Your task to perform on an android device: Search for the best rated headphones on Amazon Image 0: 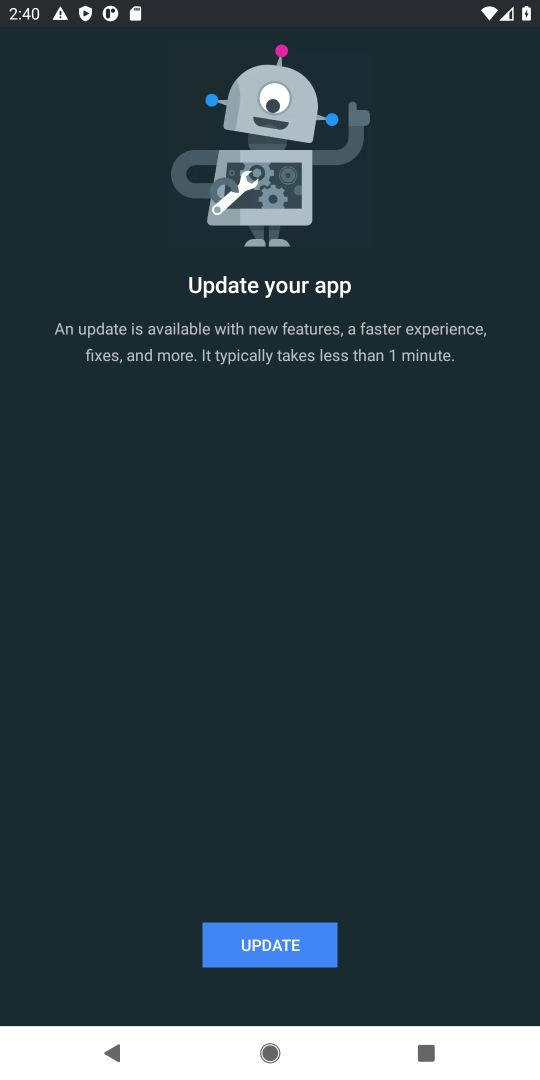
Step 0: press home button
Your task to perform on an android device: Search for the best rated headphones on Amazon Image 1: 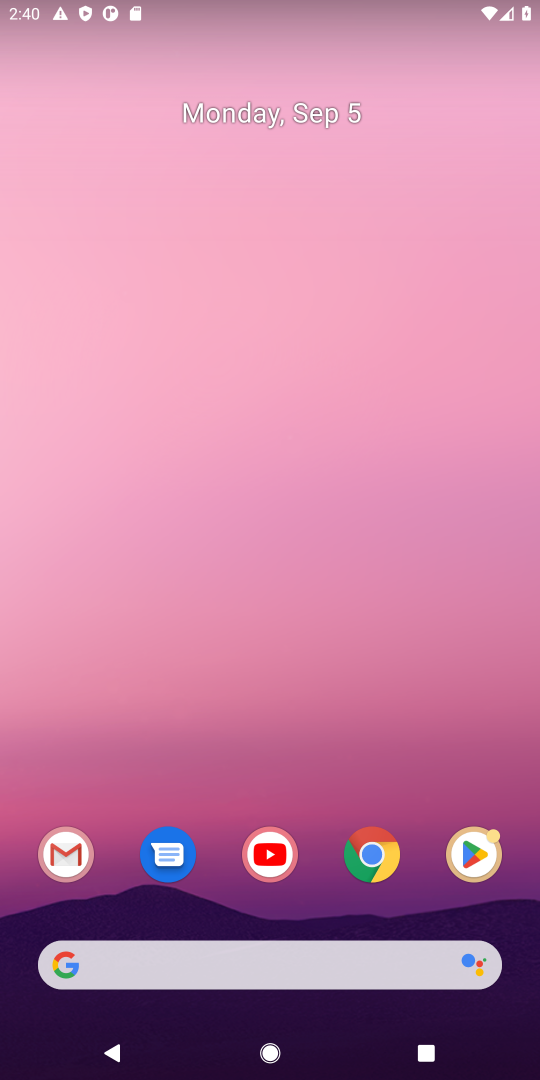
Step 1: click (354, 965)
Your task to perform on an android device: Search for the best rated headphones on Amazon Image 2: 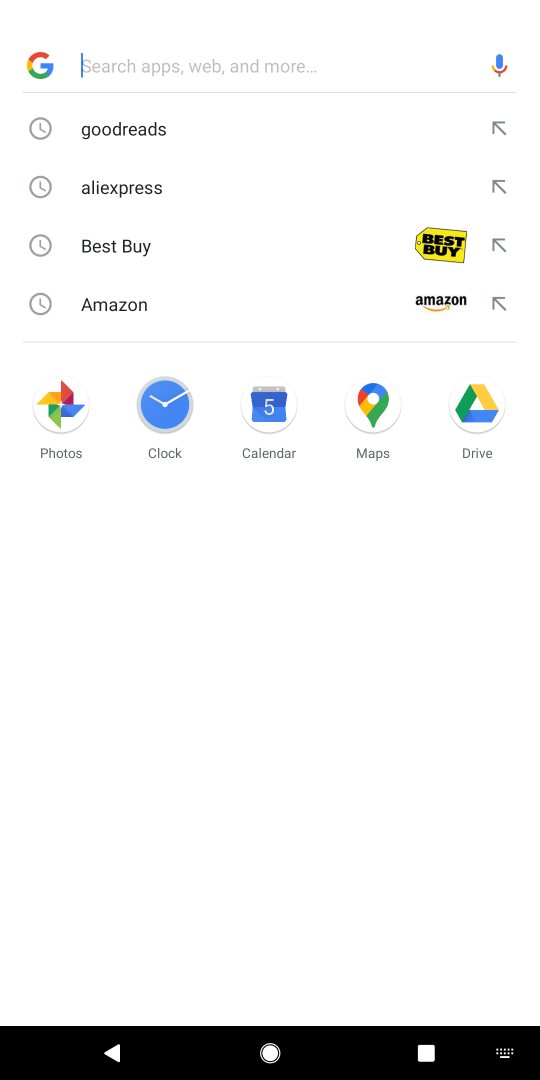
Step 2: press enter
Your task to perform on an android device: Search for the best rated headphones on Amazon Image 3: 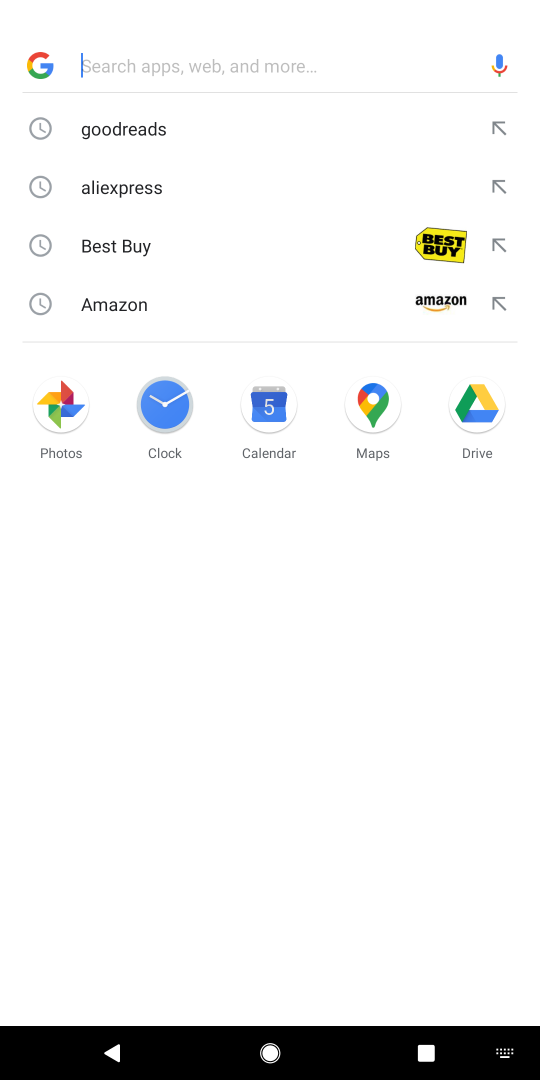
Step 3: type "amazon"
Your task to perform on an android device: Search for the best rated headphones on Amazon Image 4: 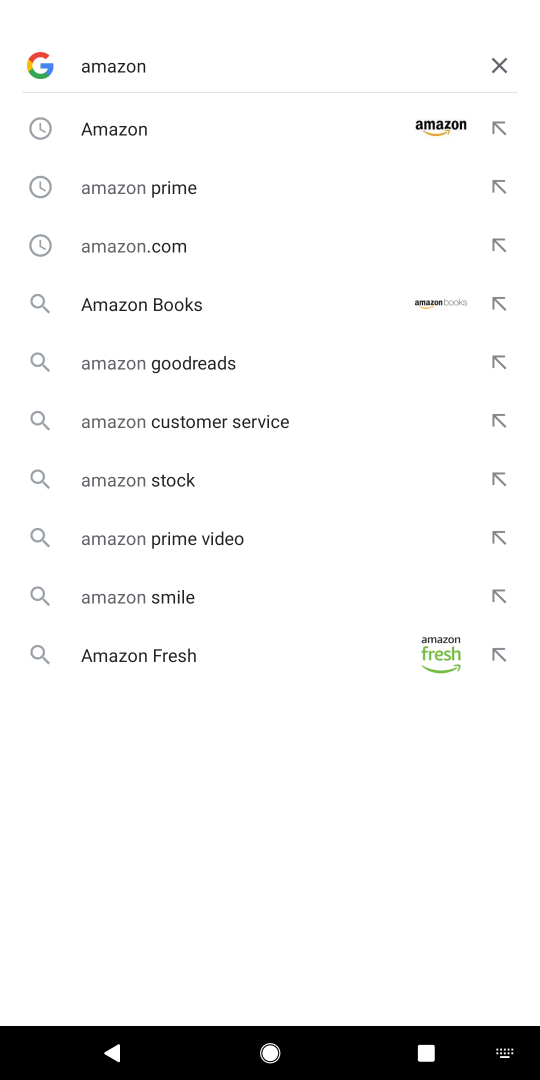
Step 4: click (174, 124)
Your task to perform on an android device: Search for the best rated headphones on Amazon Image 5: 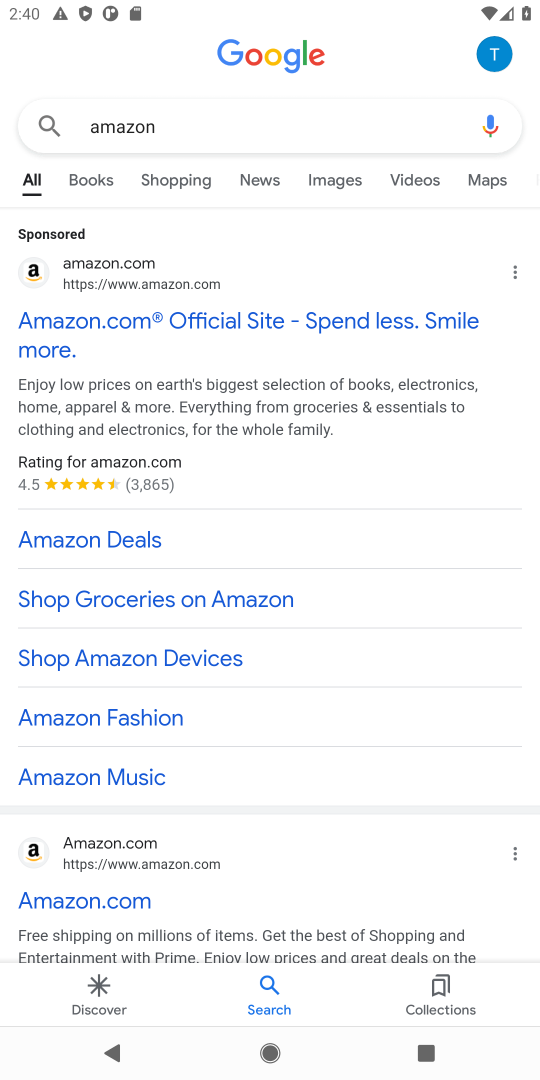
Step 5: click (247, 315)
Your task to perform on an android device: Search for the best rated headphones on Amazon Image 6: 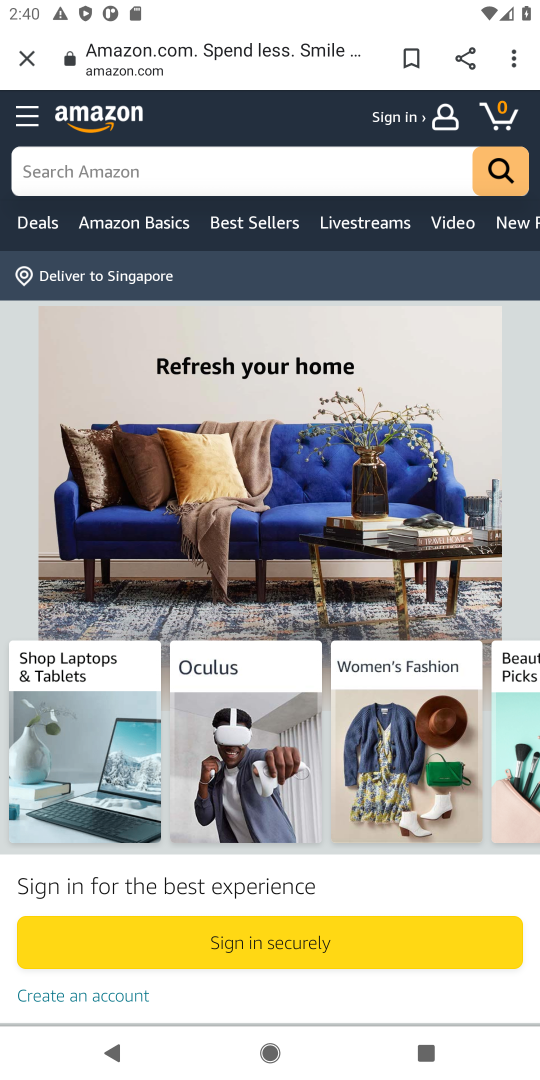
Step 6: click (237, 164)
Your task to perform on an android device: Search for the best rated headphones on Amazon Image 7: 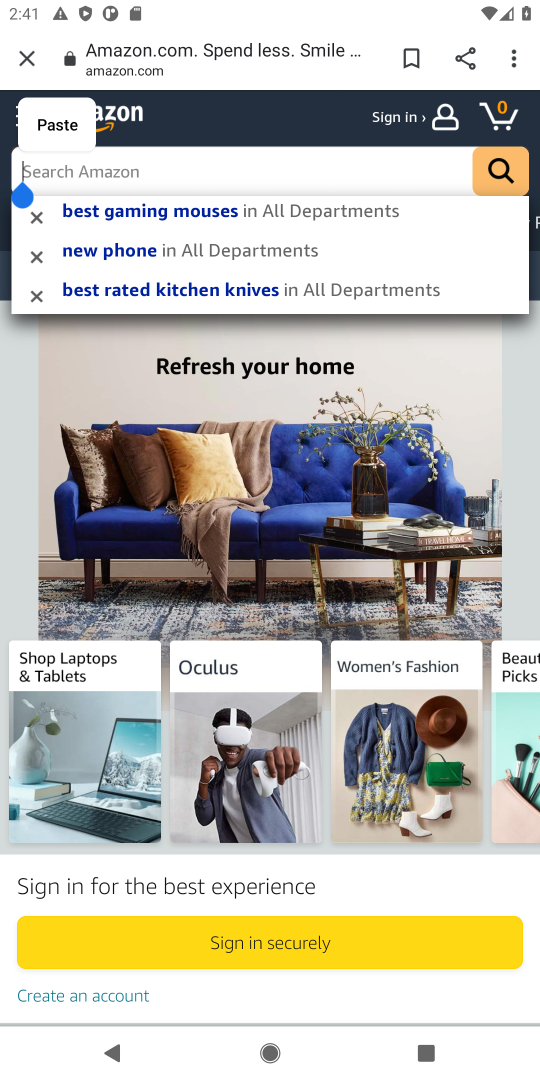
Step 7: type "best rated headphones"
Your task to perform on an android device: Search for the best rated headphones on Amazon Image 8: 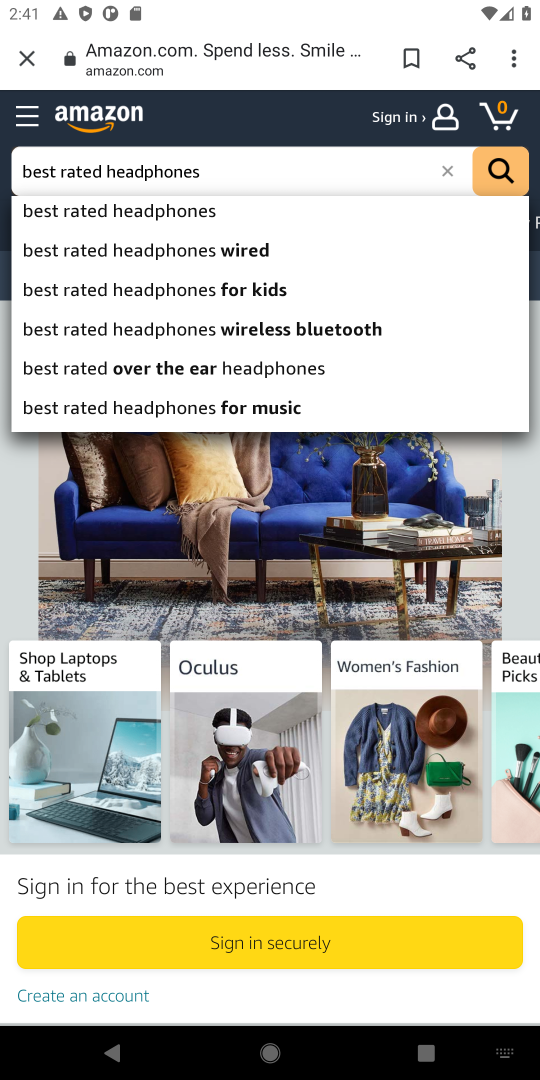
Step 8: click (182, 205)
Your task to perform on an android device: Search for the best rated headphones on Amazon Image 9: 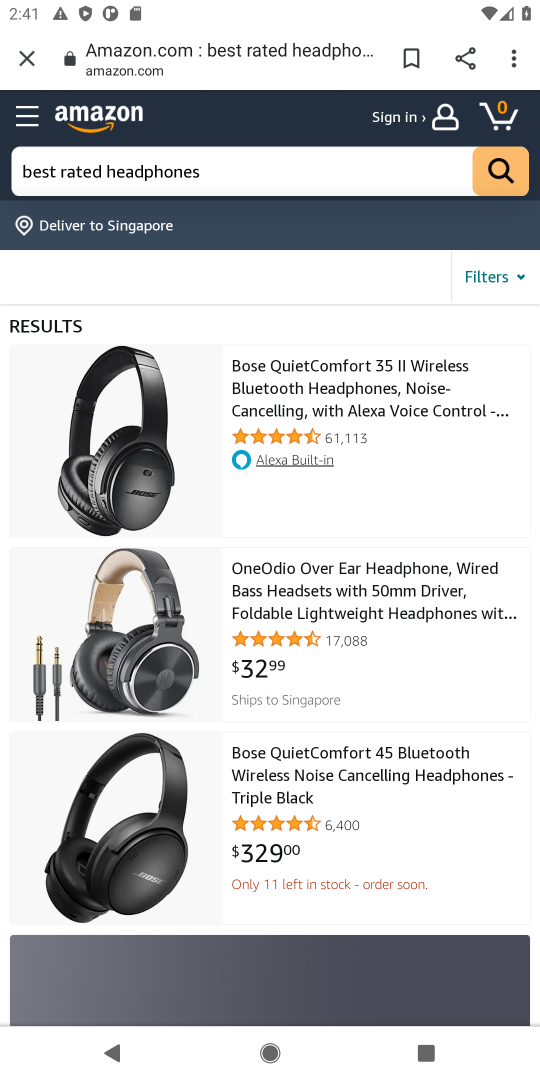
Step 9: task complete